Your task to perform on an android device: open app "Walmart Shopping & Grocery" (install if not already installed) and enter user name: "Hans@icloud.com" and password: "executing" Image 0: 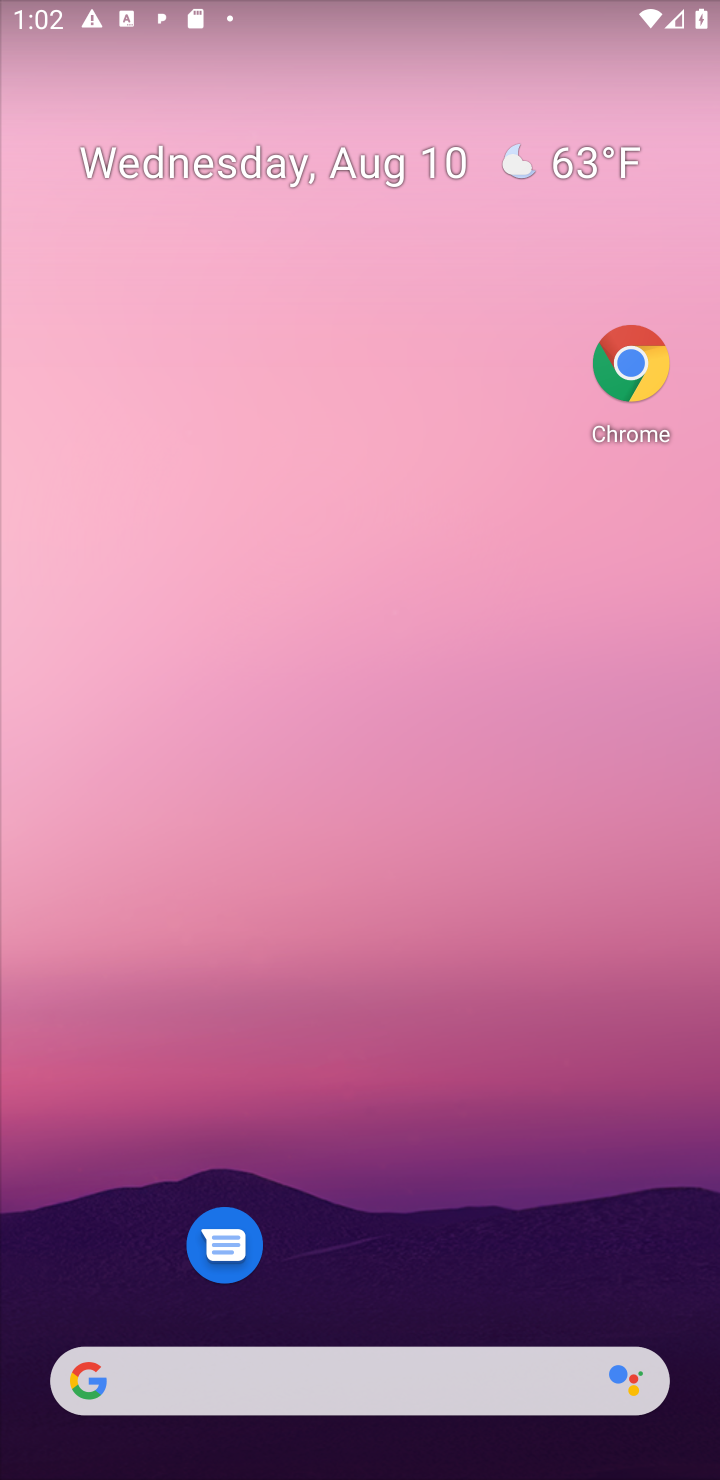
Step 0: drag from (457, 1123) to (542, 550)
Your task to perform on an android device: open app "Walmart Shopping & Grocery" (install if not already installed) and enter user name: "Hans@icloud.com" and password: "executing" Image 1: 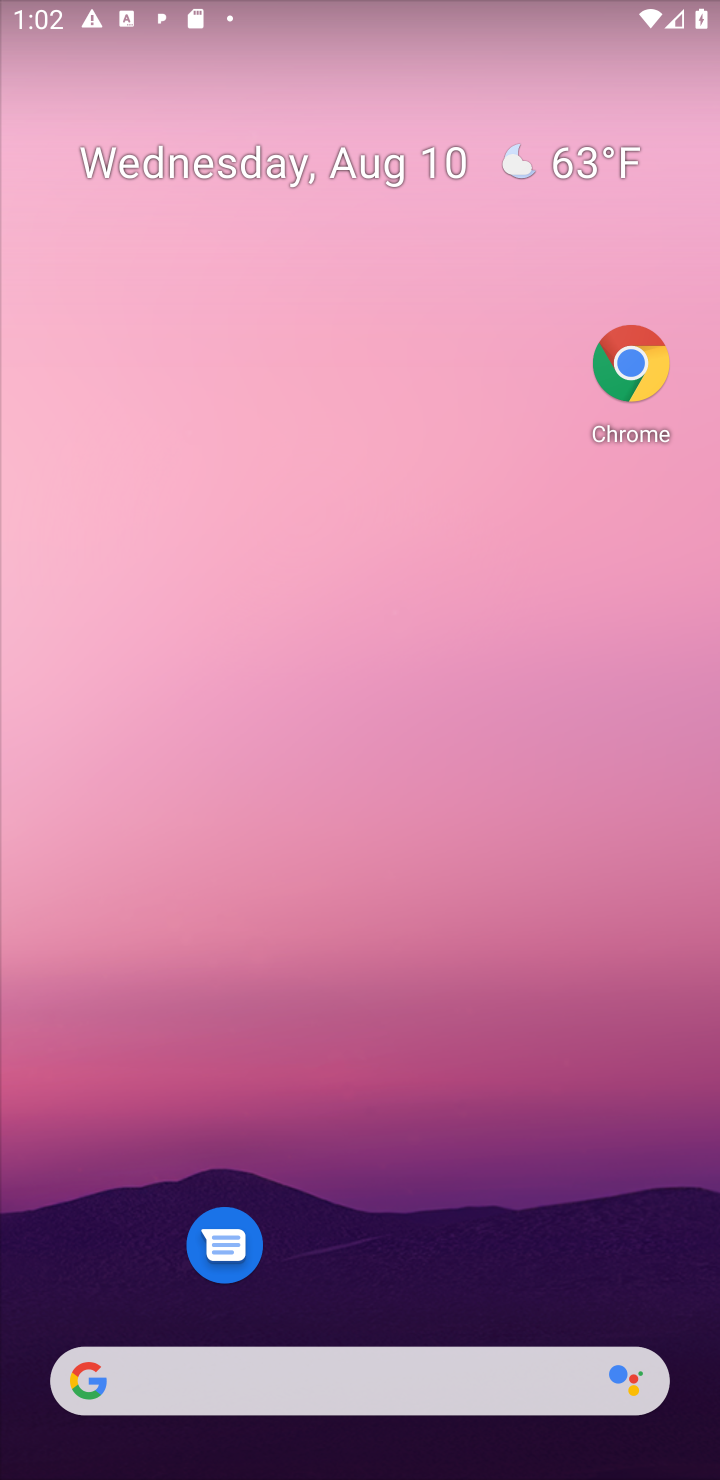
Step 1: drag from (366, 1243) to (402, 25)
Your task to perform on an android device: open app "Walmart Shopping & Grocery" (install if not already installed) and enter user name: "Hans@icloud.com" and password: "executing" Image 2: 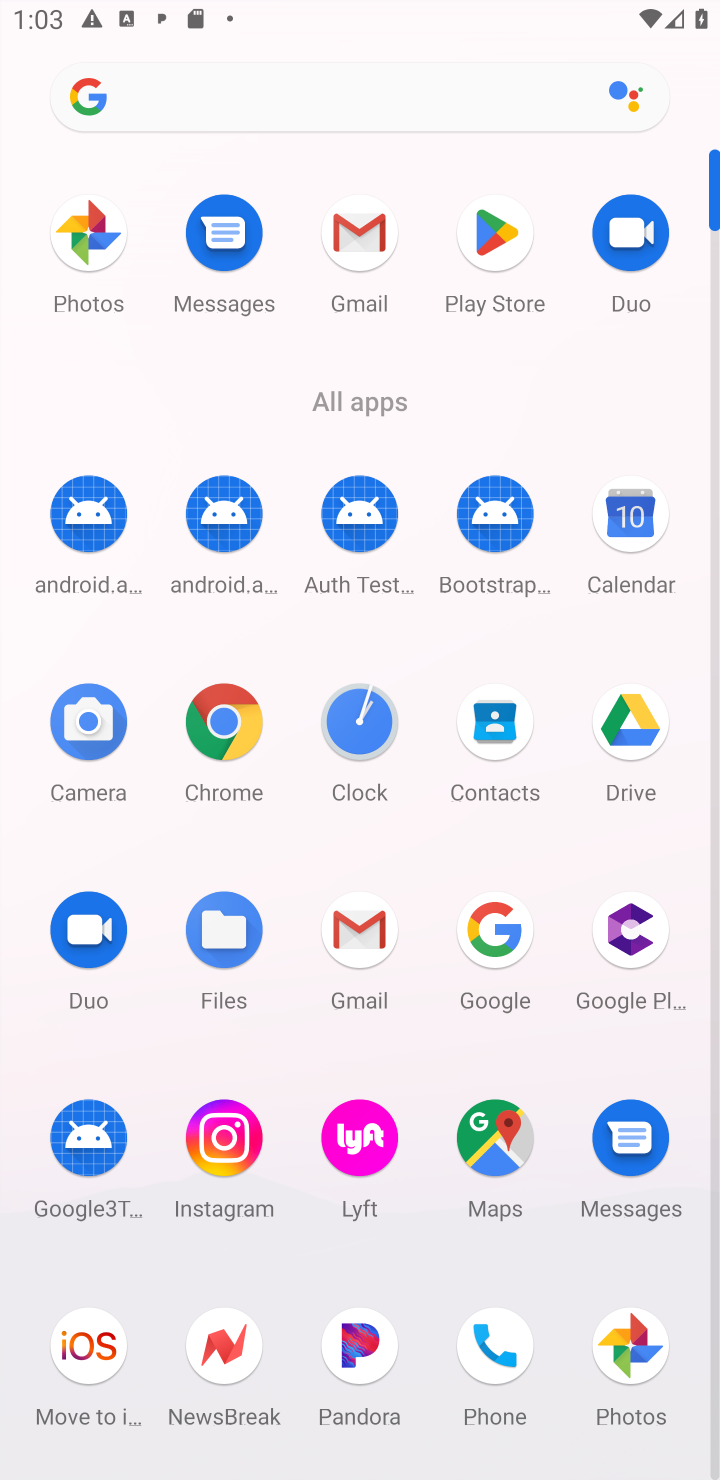
Step 2: click (495, 219)
Your task to perform on an android device: open app "Walmart Shopping & Grocery" (install if not already installed) and enter user name: "Hans@icloud.com" and password: "executing" Image 3: 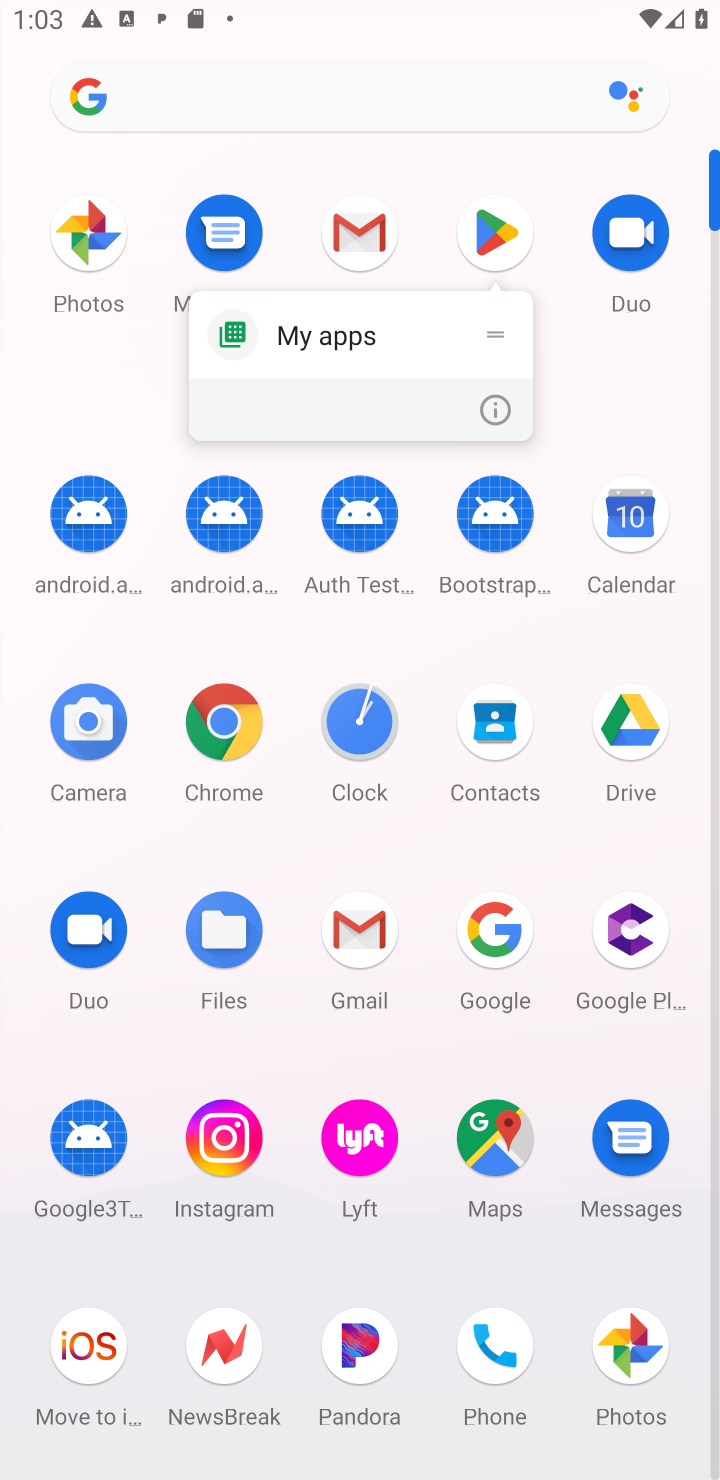
Step 3: click (496, 239)
Your task to perform on an android device: open app "Walmart Shopping & Grocery" (install if not already installed) and enter user name: "Hans@icloud.com" and password: "executing" Image 4: 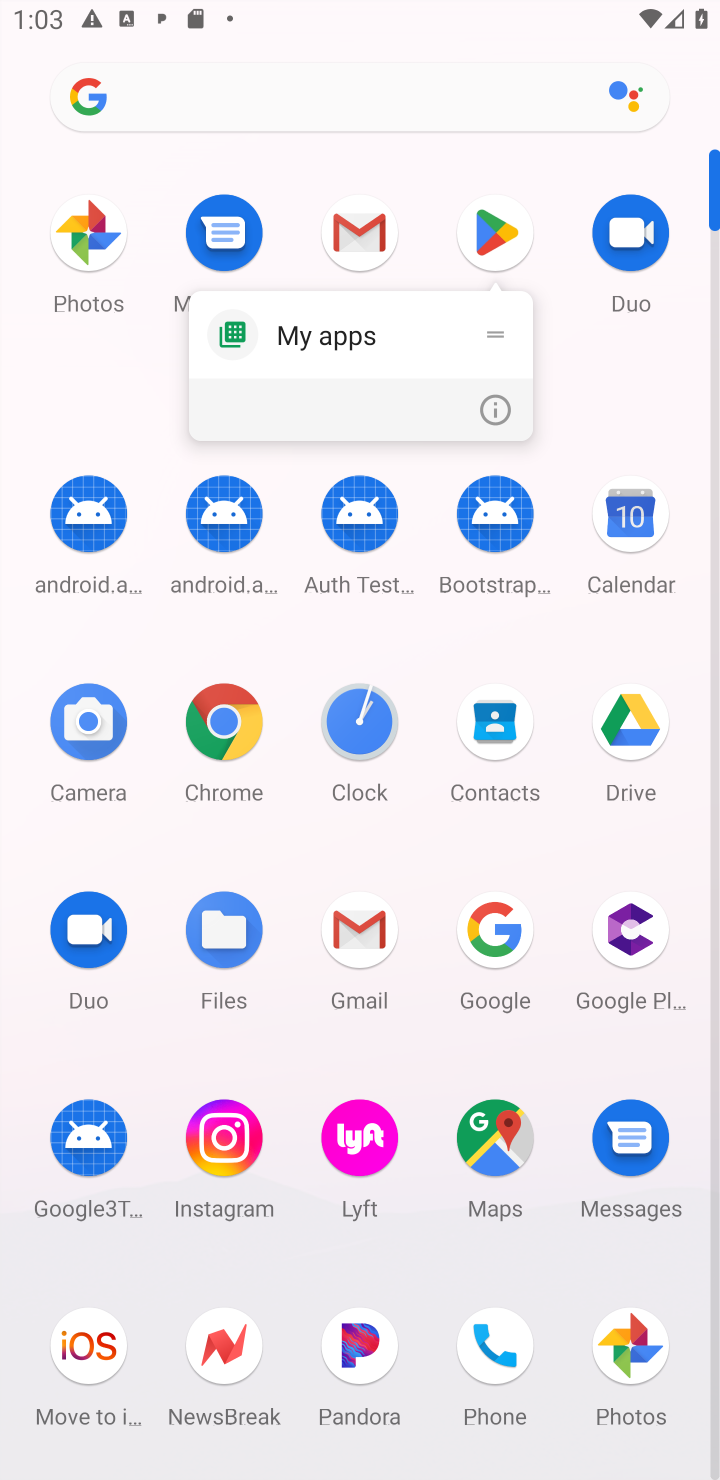
Step 4: click (489, 246)
Your task to perform on an android device: open app "Walmart Shopping & Grocery" (install if not already installed) and enter user name: "Hans@icloud.com" and password: "executing" Image 5: 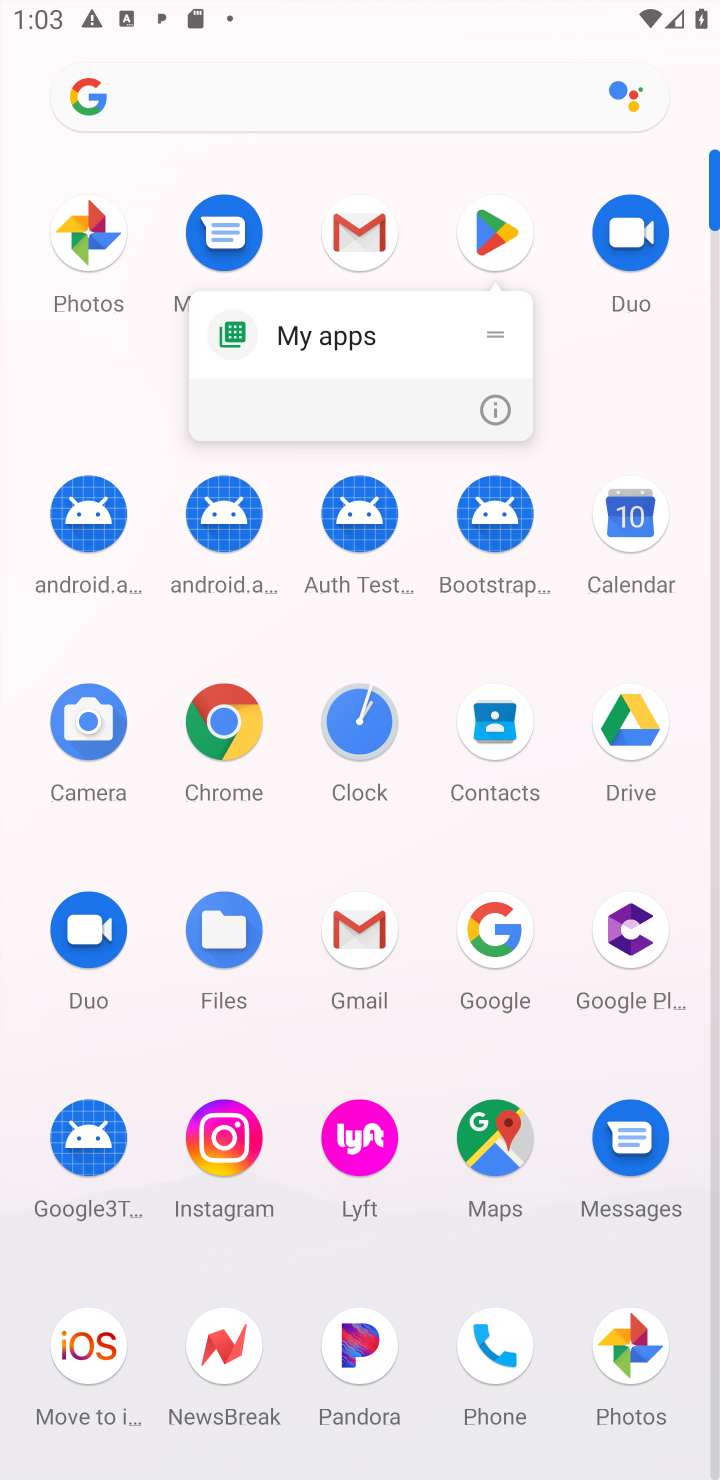
Step 5: click (486, 241)
Your task to perform on an android device: open app "Walmart Shopping & Grocery" (install if not already installed) and enter user name: "Hans@icloud.com" and password: "executing" Image 6: 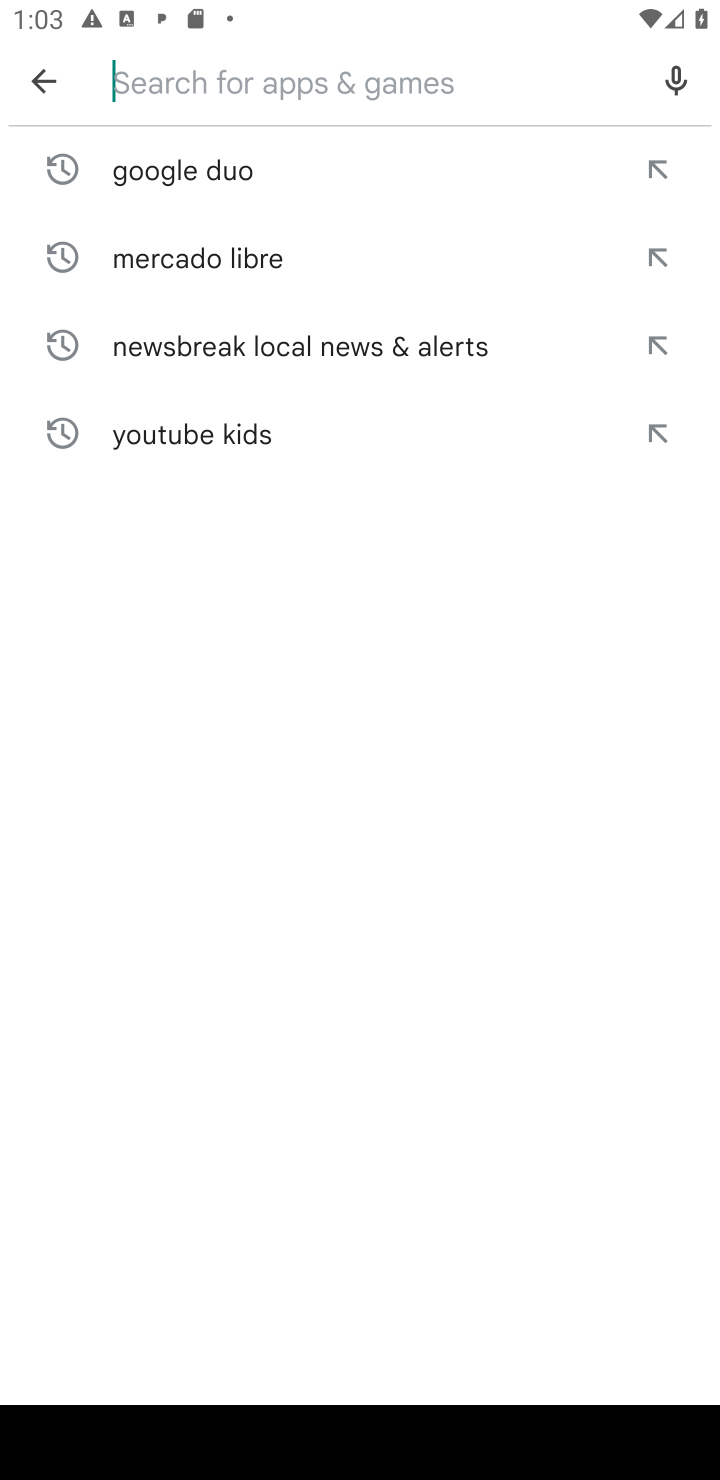
Step 6: type "Walmart Shopping & Grocery"
Your task to perform on an android device: open app "Walmart Shopping & Grocery" (install if not already installed) and enter user name: "Hans@icloud.com" and password: "executing" Image 7: 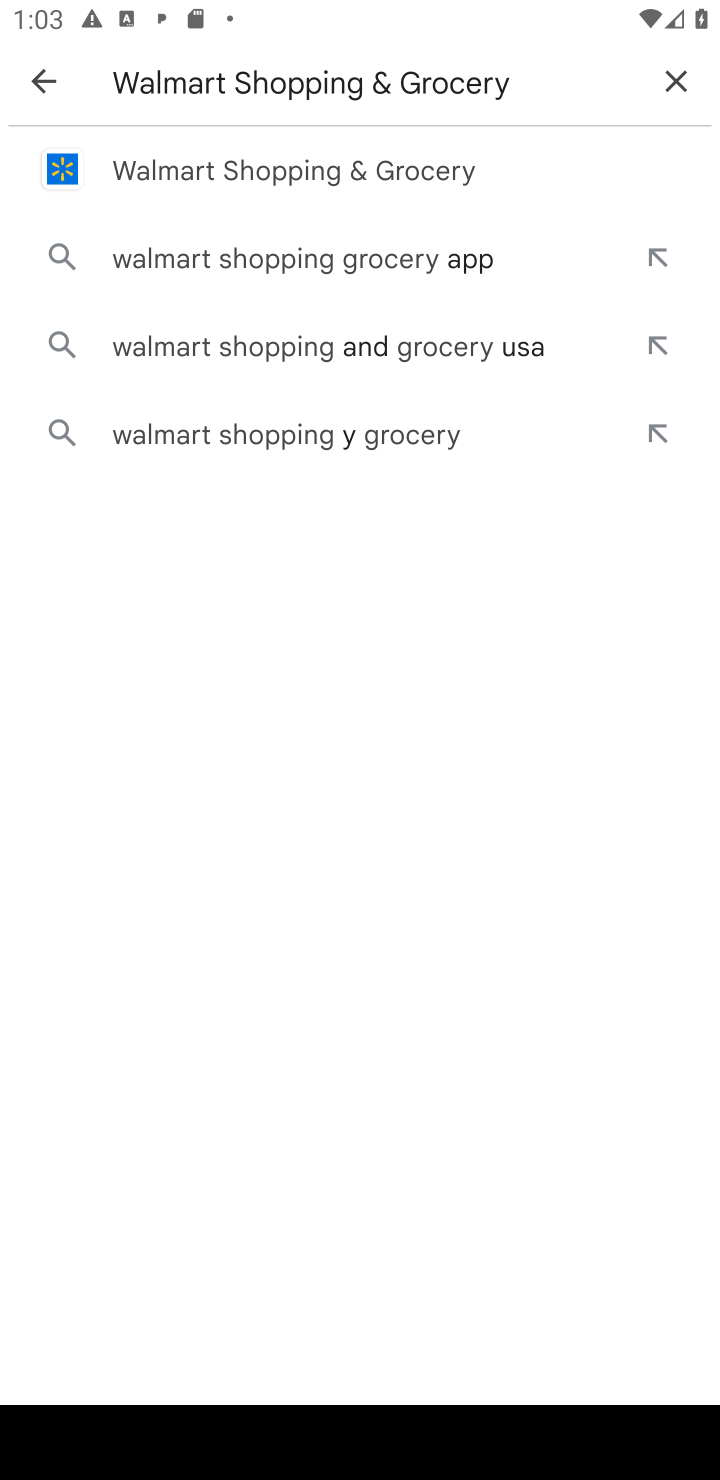
Step 7: click (307, 174)
Your task to perform on an android device: open app "Walmart Shopping & Grocery" (install if not already installed) and enter user name: "Hans@icloud.com" and password: "executing" Image 8: 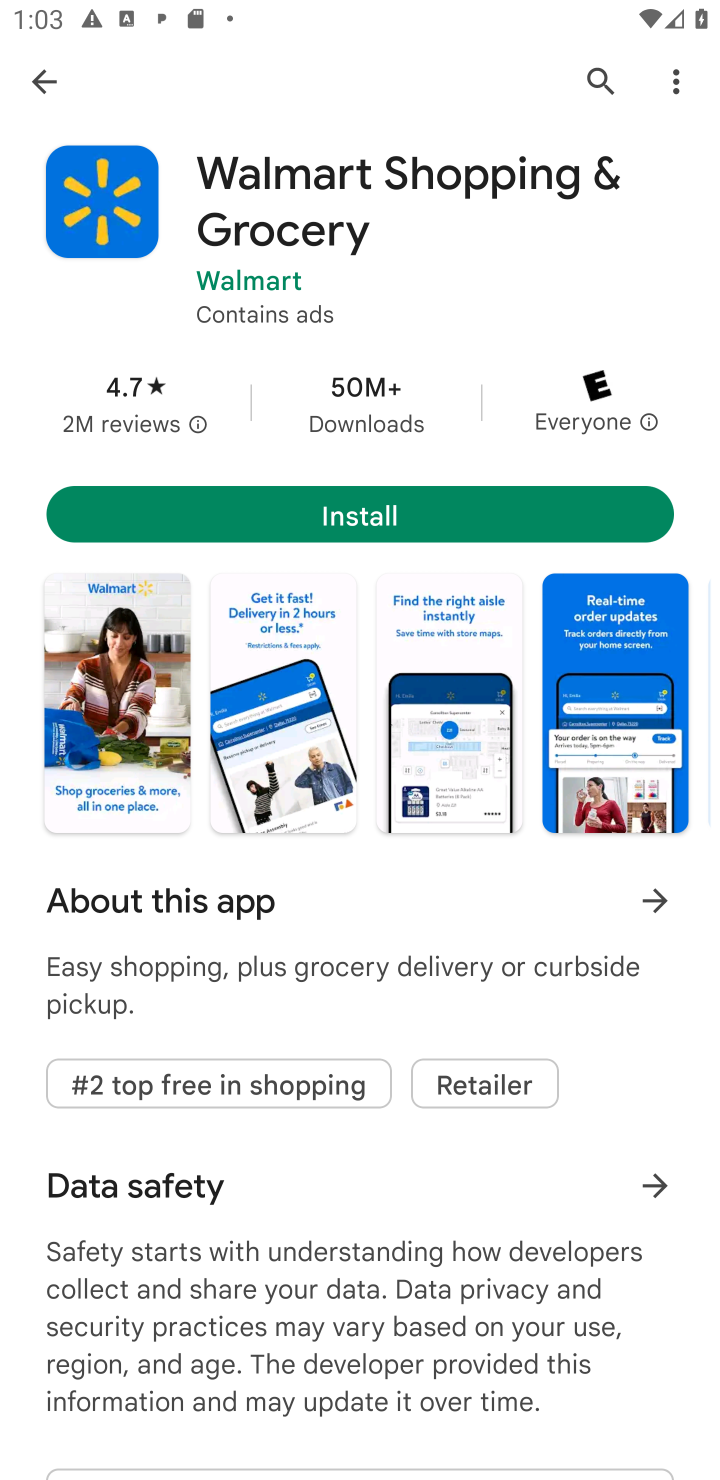
Step 8: click (308, 528)
Your task to perform on an android device: open app "Walmart Shopping & Grocery" (install if not already installed) and enter user name: "Hans@icloud.com" and password: "executing" Image 9: 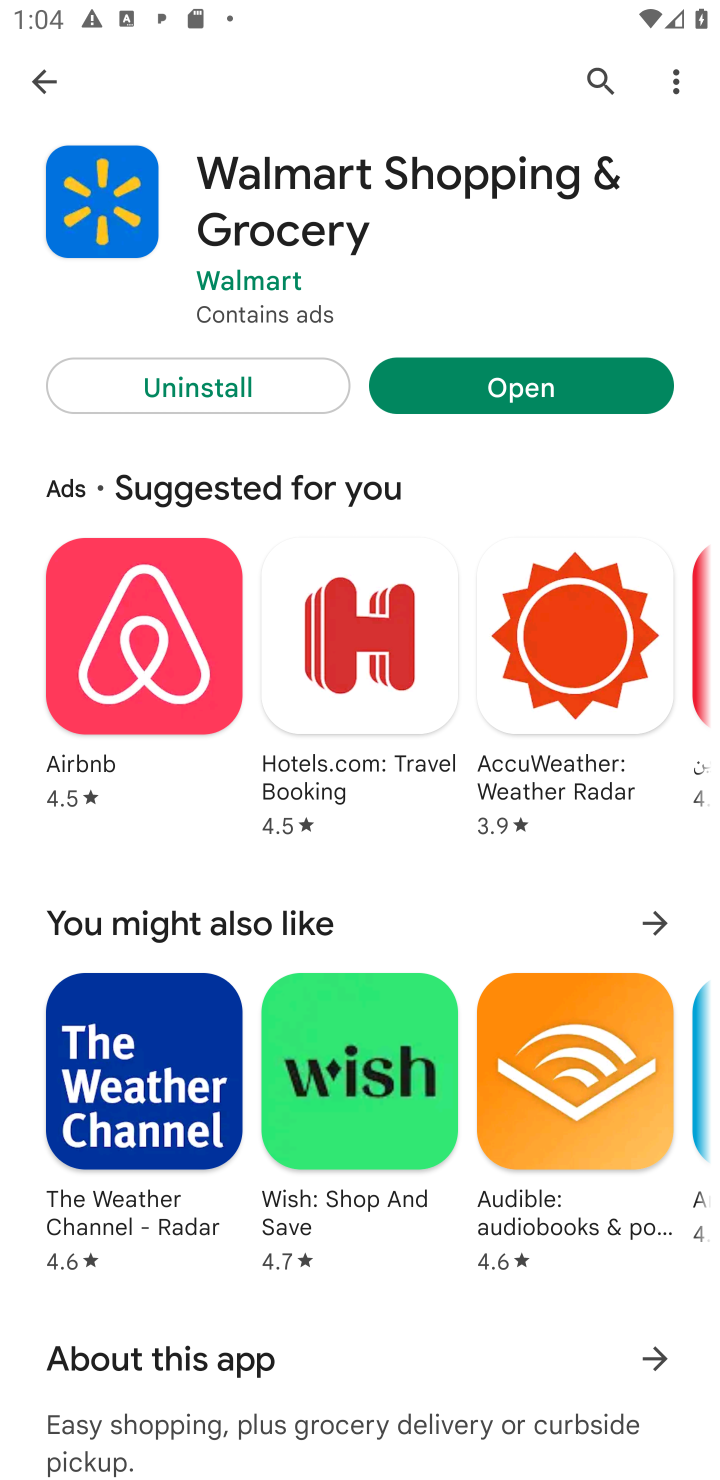
Step 9: click (530, 383)
Your task to perform on an android device: open app "Walmart Shopping & Grocery" (install if not already installed) and enter user name: "Hans@icloud.com" and password: "executing" Image 10: 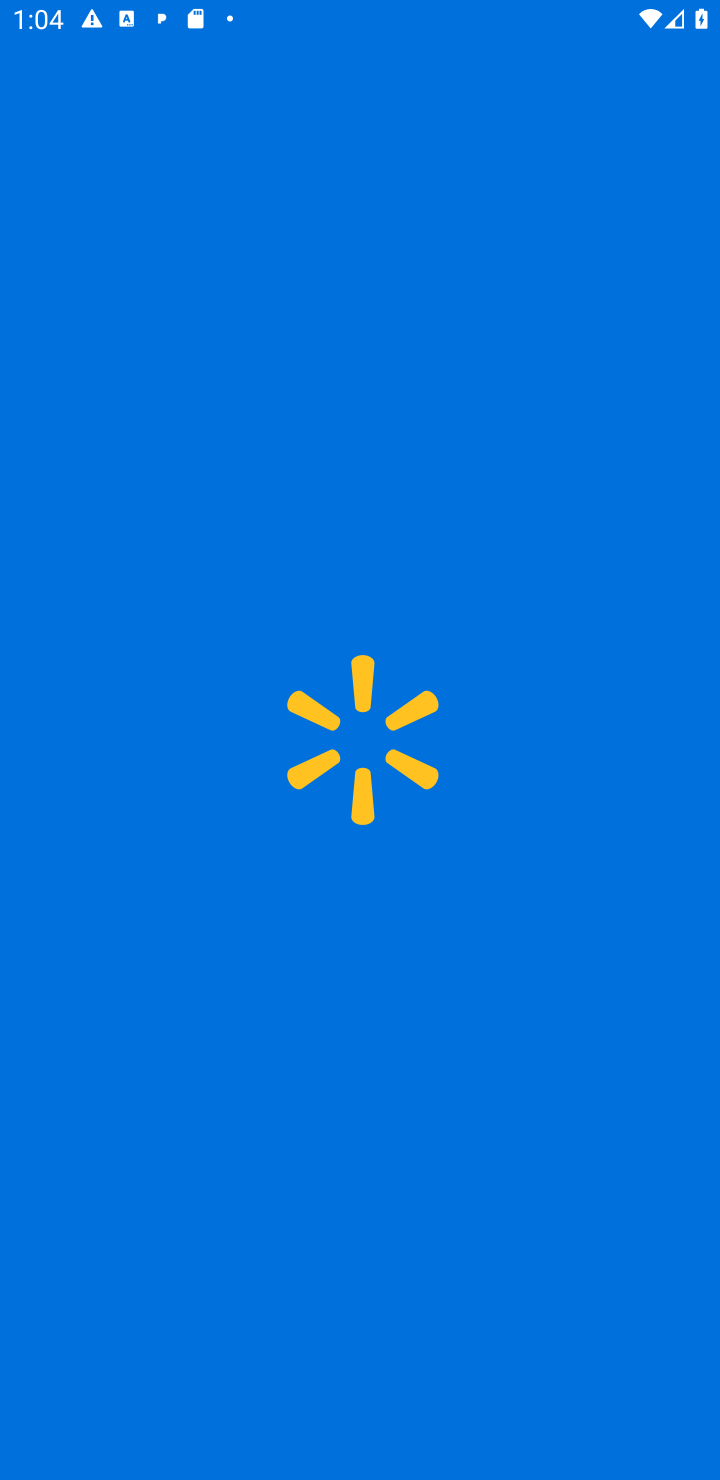
Step 10: task complete